Your task to perform on an android device: change the clock display to analog Image 0: 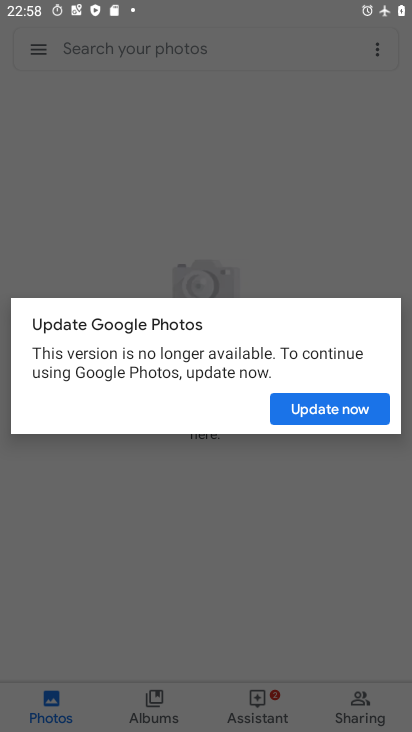
Step 0: click (359, 406)
Your task to perform on an android device: change the clock display to analog Image 1: 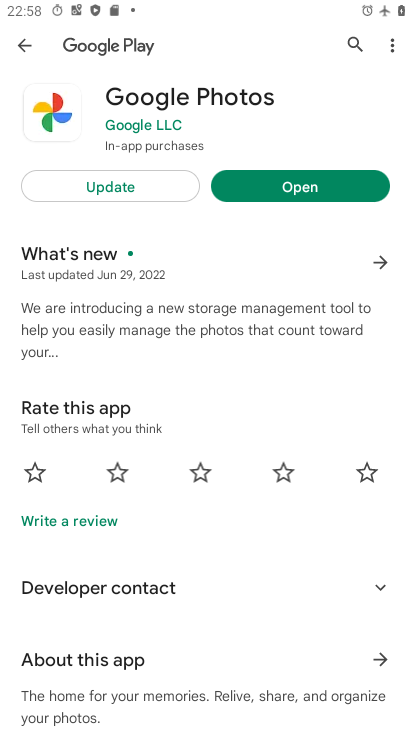
Step 1: press back button
Your task to perform on an android device: change the clock display to analog Image 2: 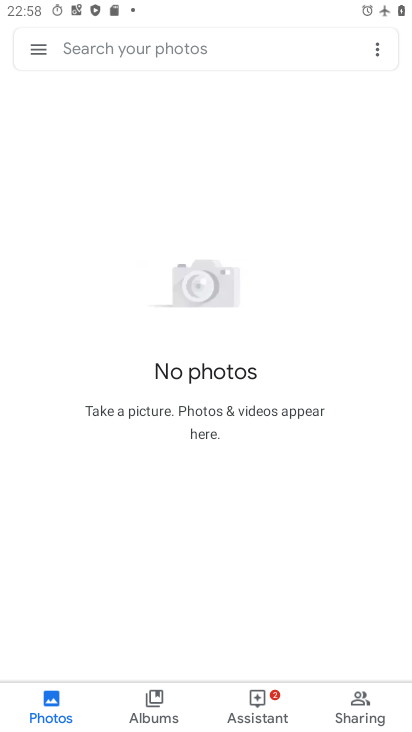
Step 2: press back button
Your task to perform on an android device: change the clock display to analog Image 3: 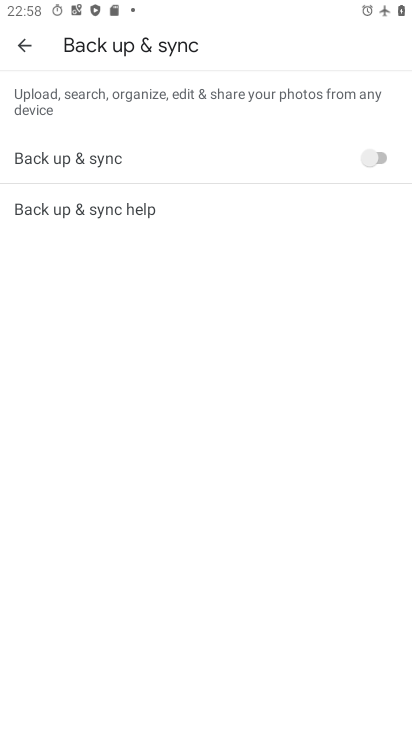
Step 3: press back button
Your task to perform on an android device: change the clock display to analog Image 4: 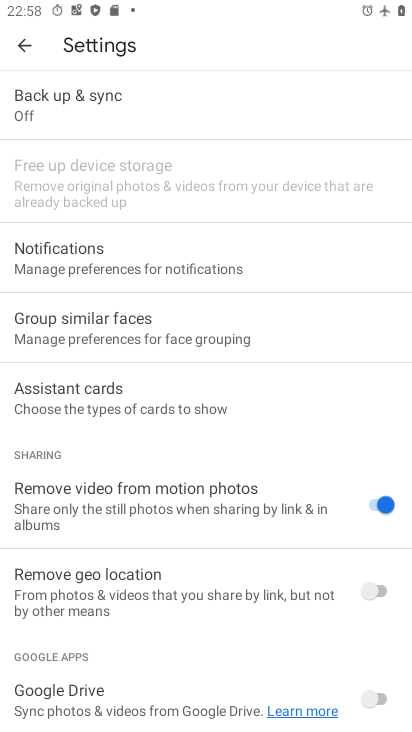
Step 4: press back button
Your task to perform on an android device: change the clock display to analog Image 5: 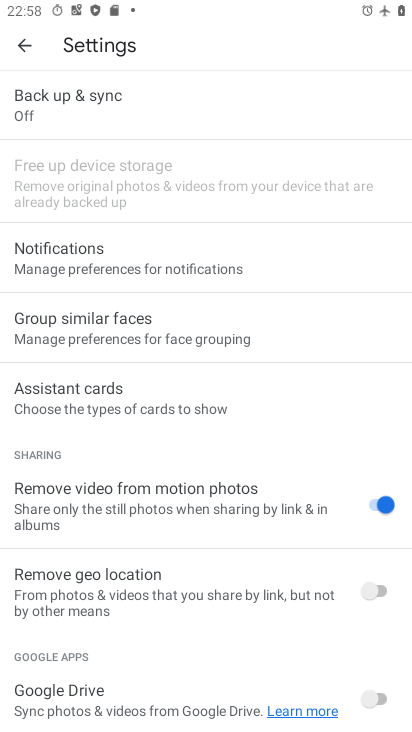
Step 5: press back button
Your task to perform on an android device: change the clock display to analog Image 6: 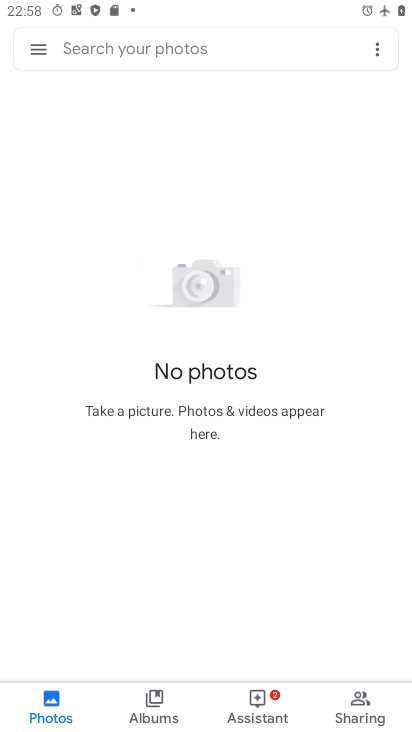
Step 6: press back button
Your task to perform on an android device: change the clock display to analog Image 7: 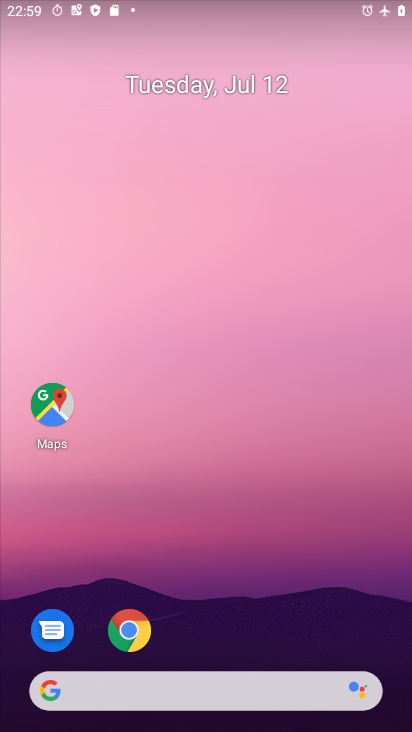
Step 7: drag from (226, 584) to (289, 48)
Your task to perform on an android device: change the clock display to analog Image 8: 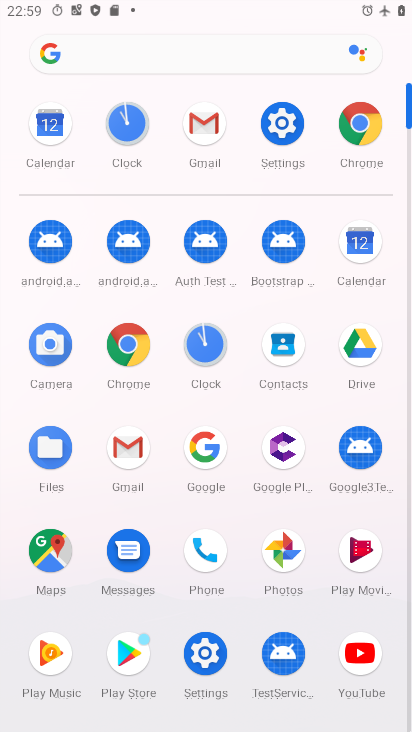
Step 8: click (210, 351)
Your task to perform on an android device: change the clock display to analog Image 9: 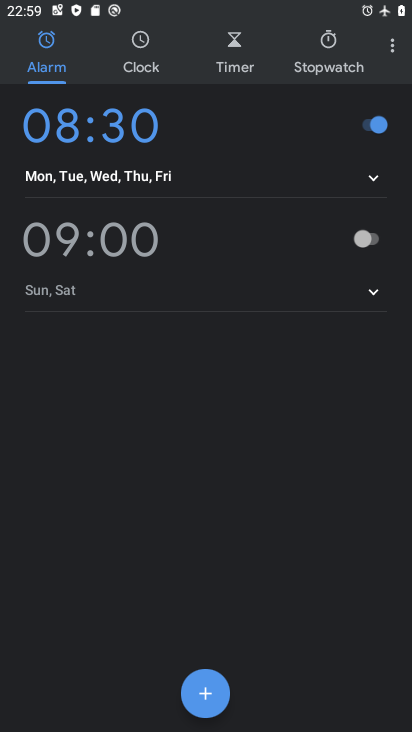
Step 9: click (393, 38)
Your task to perform on an android device: change the clock display to analog Image 10: 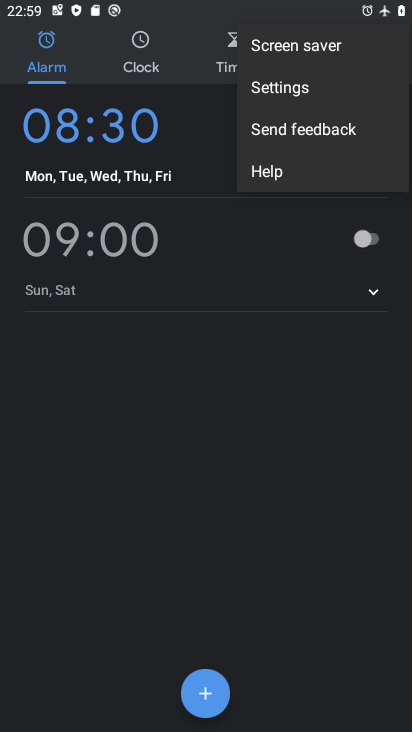
Step 10: click (274, 83)
Your task to perform on an android device: change the clock display to analog Image 11: 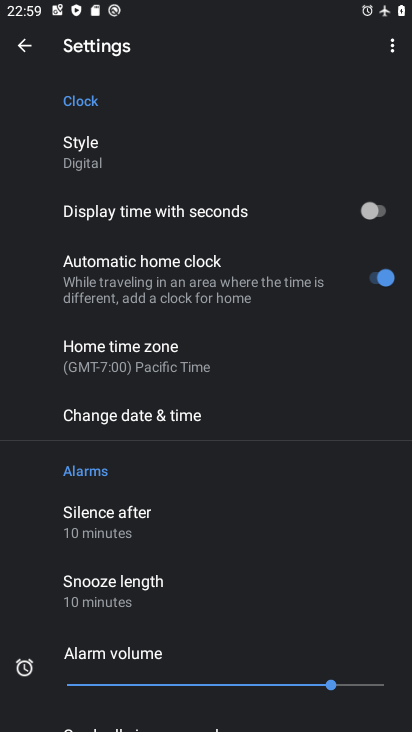
Step 11: click (142, 142)
Your task to perform on an android device: change the clock display to analog Image 12: 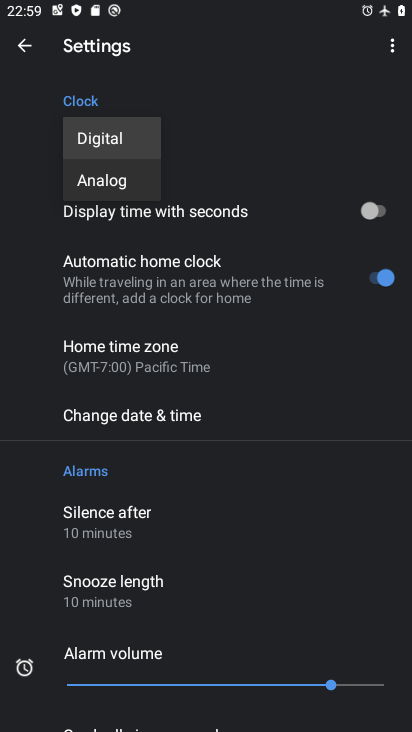
Step 12: click (141, 180)
Your task to perform on an android device: change the clock display to analog Image 13: 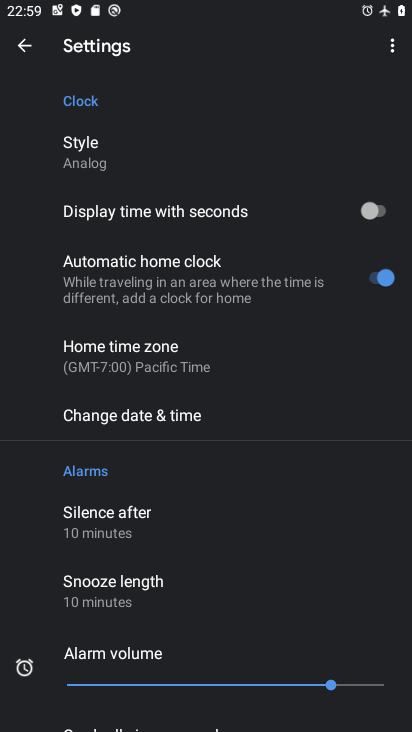
Step 13: task complete